Your task to perform on an android device: empty trash in the gmail app Image 0: 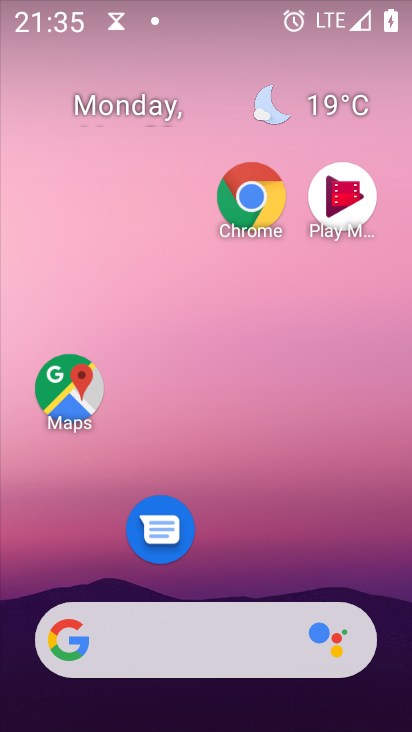
Step 0: drag from (227, 455) to (184, 182)
Your task to perform on an android device: empty trash in the gmail app Image 1: 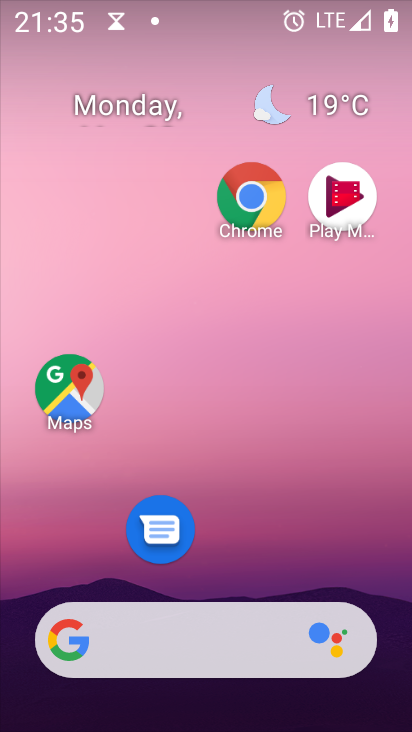
Step 1: drag from (243, 450) to (224, 34)
Your task to perform on an android device: empty trash in the gmail app Image 2: 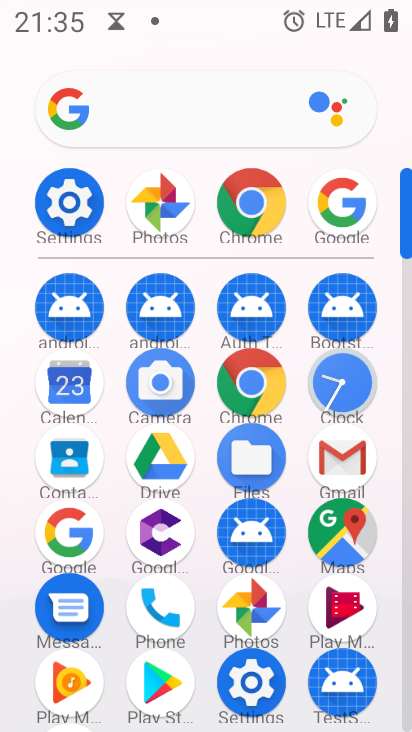
Step 2: click (346, 479)
Your task to perform on an android device: empty trash in the gmail app Image 3: 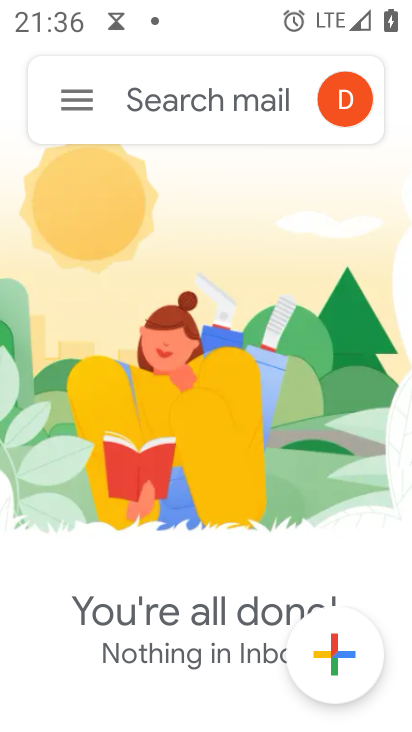
Step 3: click (70, 106)
Your task to perform on an android device: empty trash in the gmail app Image 4: 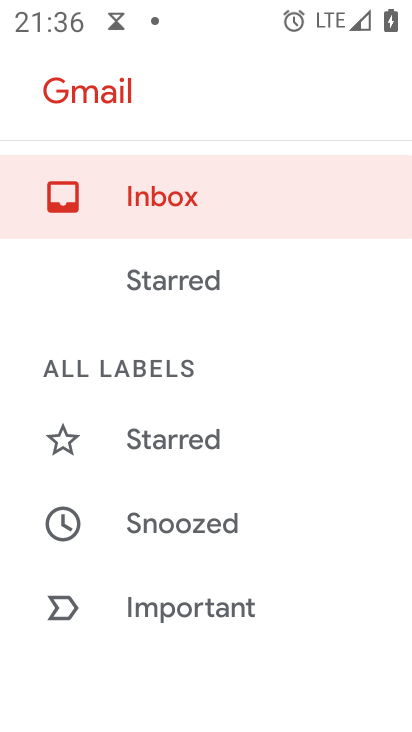
Step 4: drag from (177, 555) to (180, 175)
Your task to perform on an android device: empty trash in the gmail app Image 5: 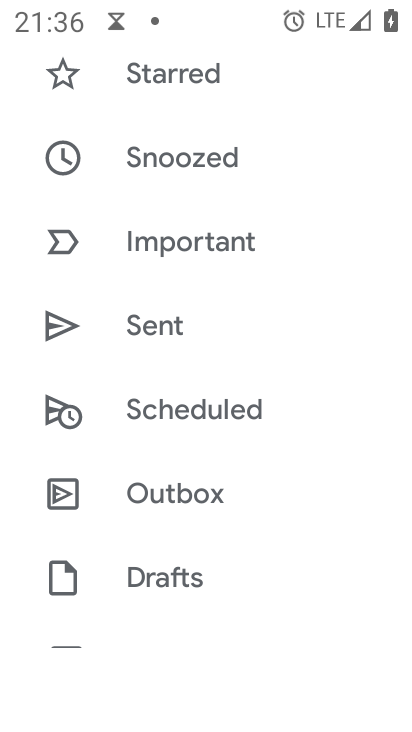
Step 5: drag from (234, 499) to (208, 201)
Your task to perform on an android device: empty trash in the gmail app Image 6: 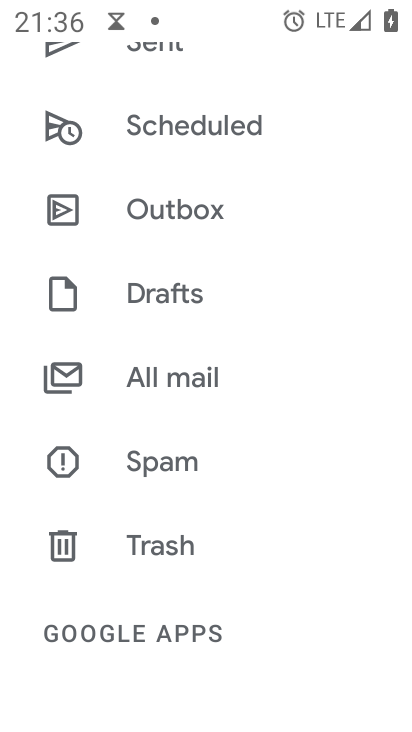
Step 6: click (172, 553)
Your task to perform on an android device: empty trash in the gmail app Image 7: 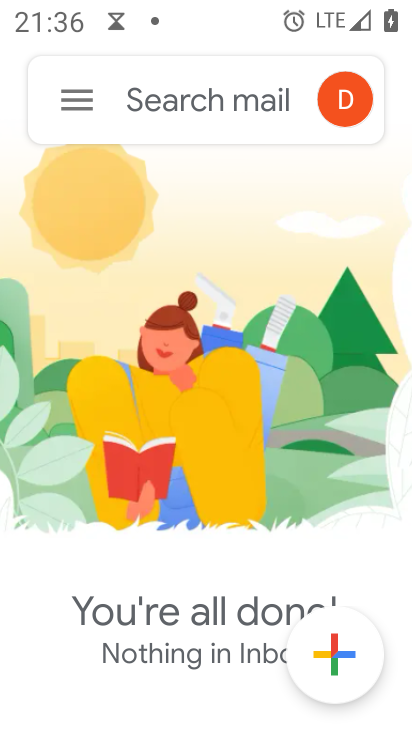
Step 7: task complete